Your task to perform on an android device: toggle improve location accuracy Image 0: 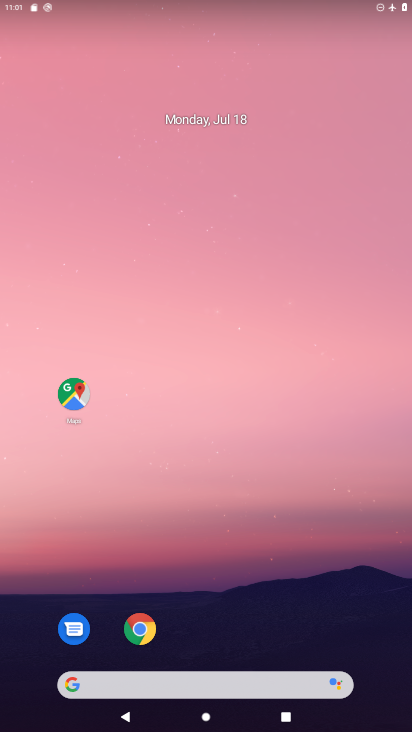
Step 0: drag from (263, 587) to (227, 103)
Your task to perform on an android device: toggle improve location accuracy Image 1: 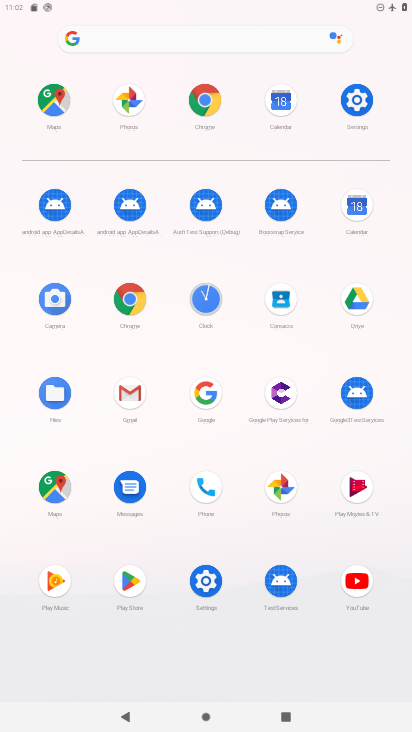
Step 1: click (363, 103)
Your task to perform on an android device: toggle improve location accuracy Image 2: 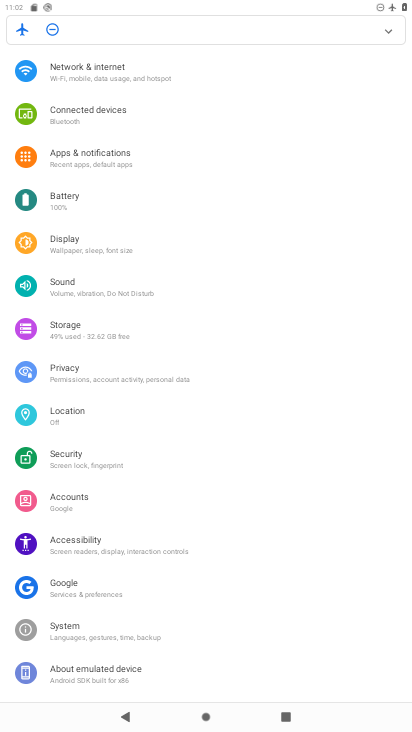
Step 2: click (79, 410)
Your task to perform on an android device: toggle improve location accuracy Image 3: 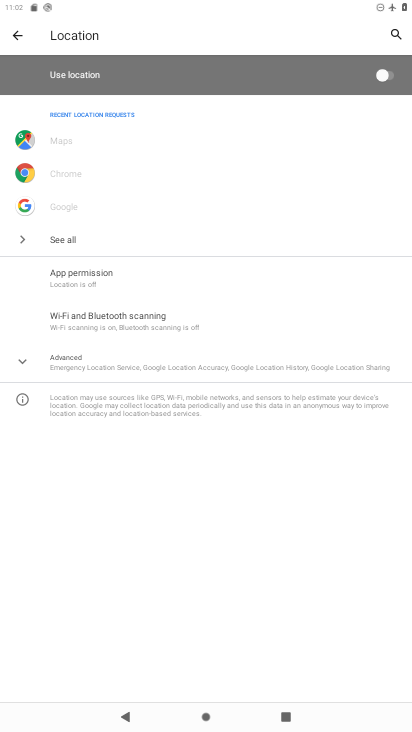
Step 3: click (90, 362)
Your task to perform on an android device: toggle improve location accuracy Image 4: 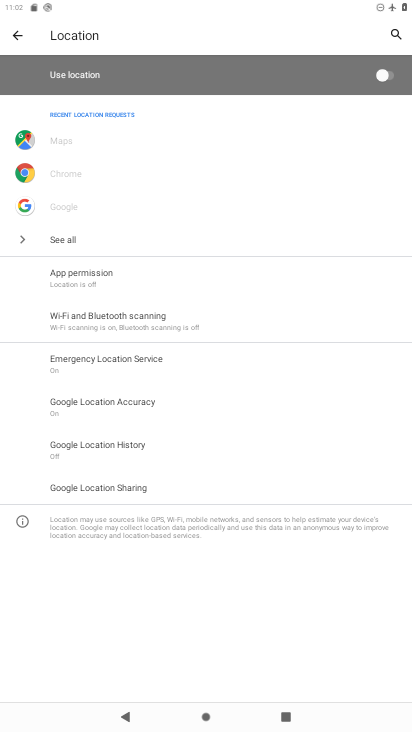
Step 4: click (127, 408)
Your task to perform on an android device: toggle improve location accuracy Image 5: 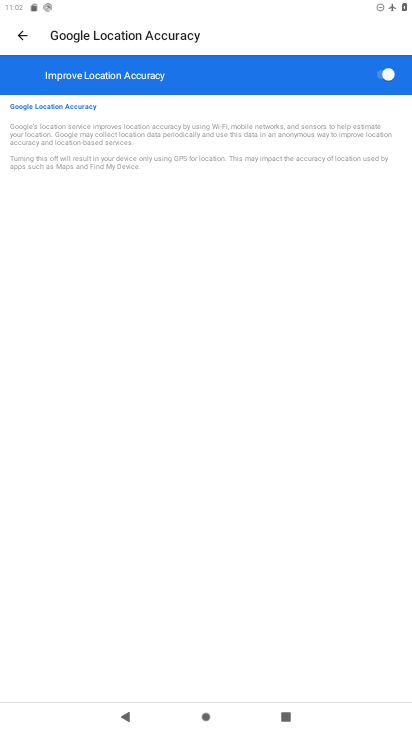
Step 5: click (380, 71)
Your task to perform on an android device: toggle improve location accuracy Image 6: 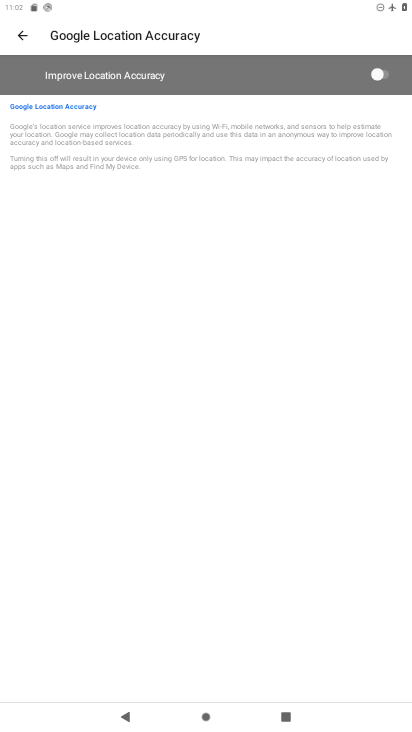
Step 6: task complete